Your task to perform on an android device: When is my next appointment? Image 0: 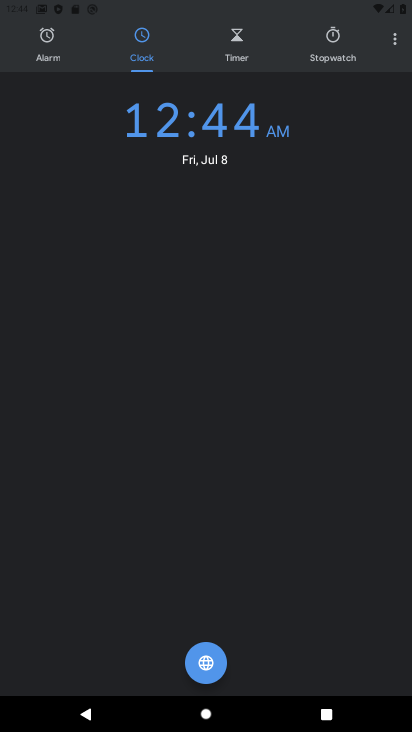
Step 0: press home button
Your task to perform on an android device: When is my next appointment? Image 1: 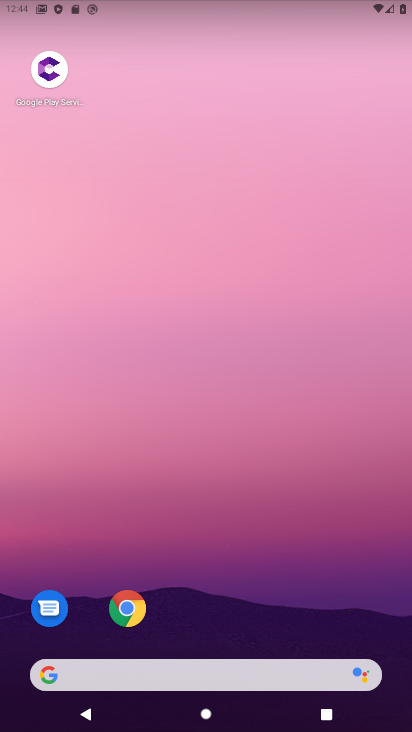
Step 1: drag from (388, 623) to (370, 78)
Your task to perform on an android device: When is my next appointment? Image 2: 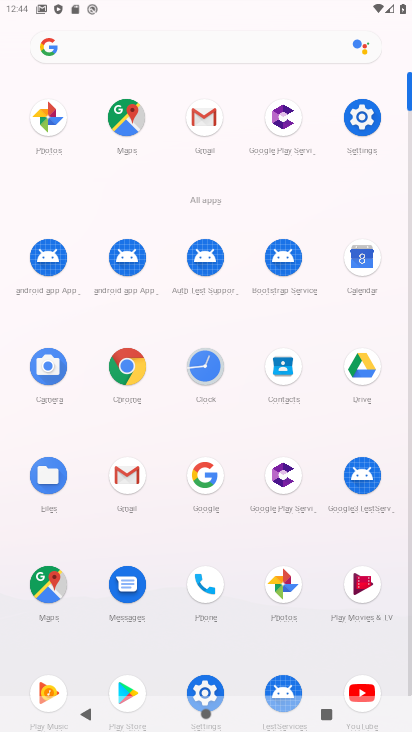
Step 2: click (362, 261)
Your task to perform on an android device: When is my next appointment? Image 3: 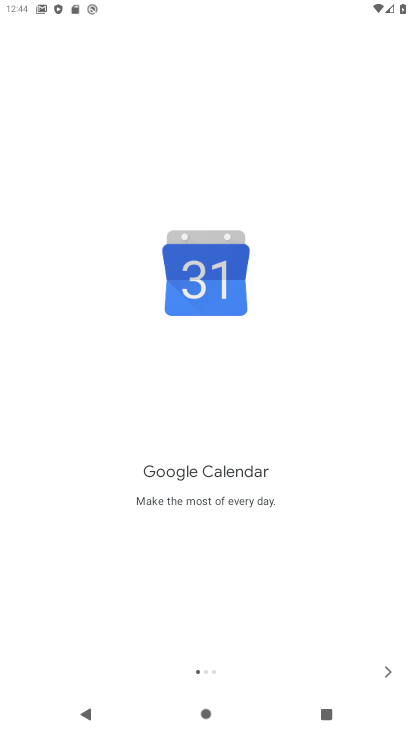
Step 3: click (386, 670)
Your task to perform on an android device: When is my next appointment? Image 4: 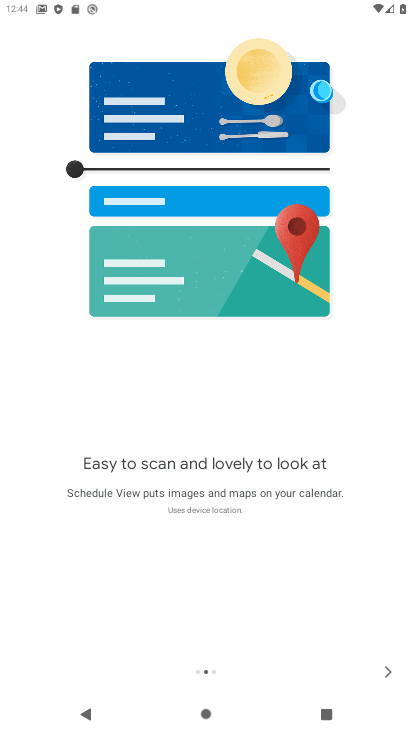
Step 4: click (386, 670)
Your task to perform on an android device: When is my next appointment? Image 5: 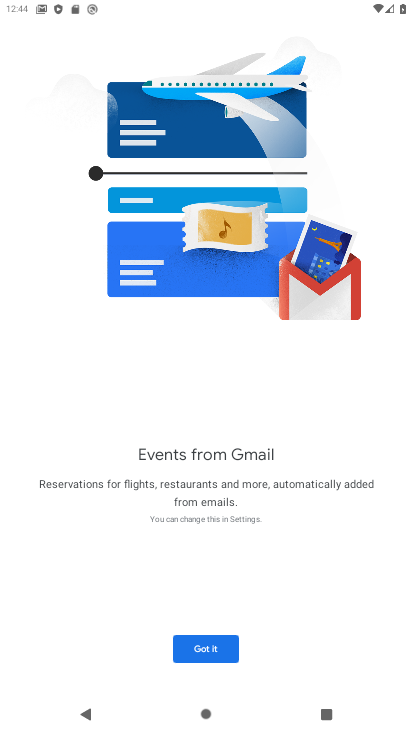
Step 5: click (206, 654)
Your task to perform on an android device: When is my next appointment? Image 6: 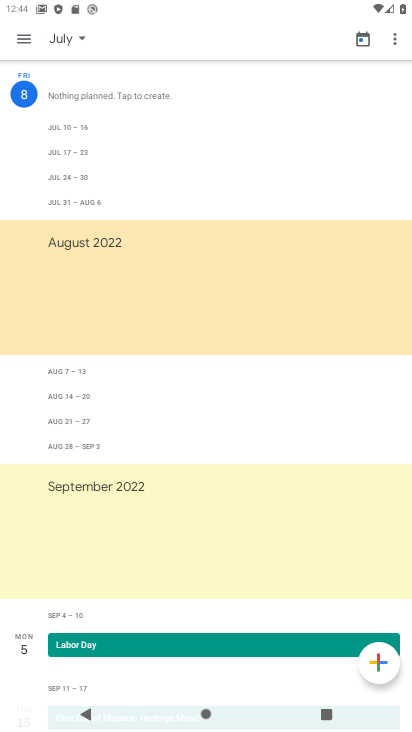
Step 6: click (25, 38)
Your task to perform on an android device: When is my next appointment? Image 7: 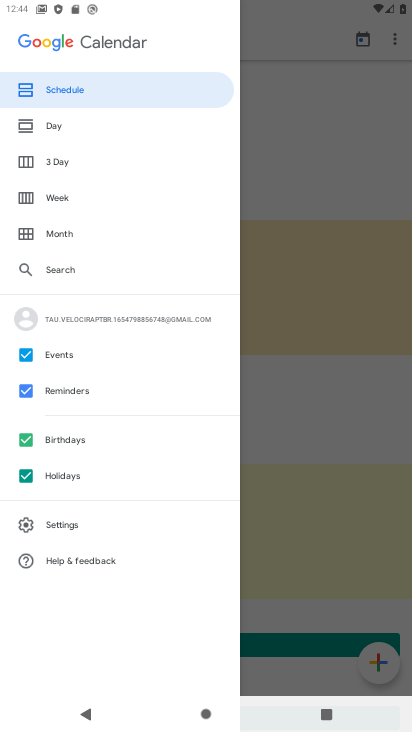
Step 7: click (87, 97)
Your task to perform on an android device: When is my next appointment? Image 8: 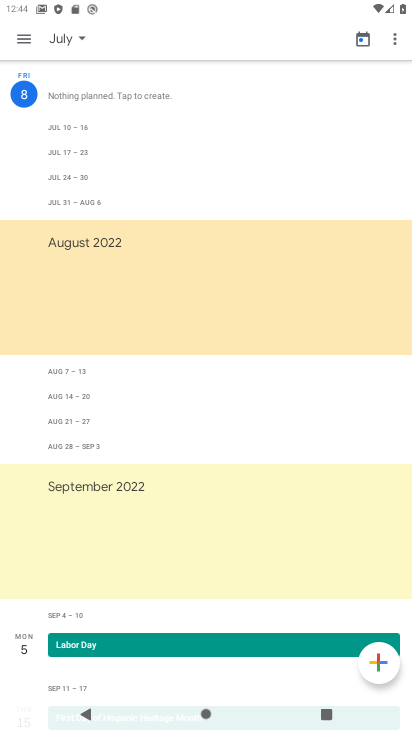
Step 8: task complete